Your task to perform on an android device: turn off smart reply in the gmail app Image 0: 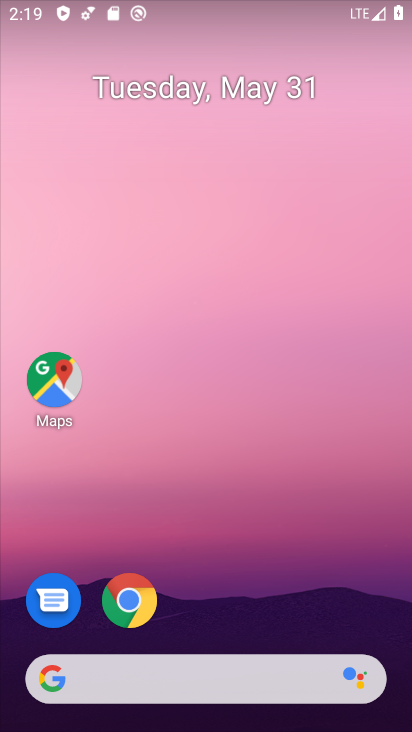
Step 0: press home button
Your task to perform on an android device: turn off smart reply in the gmail app Image 1: 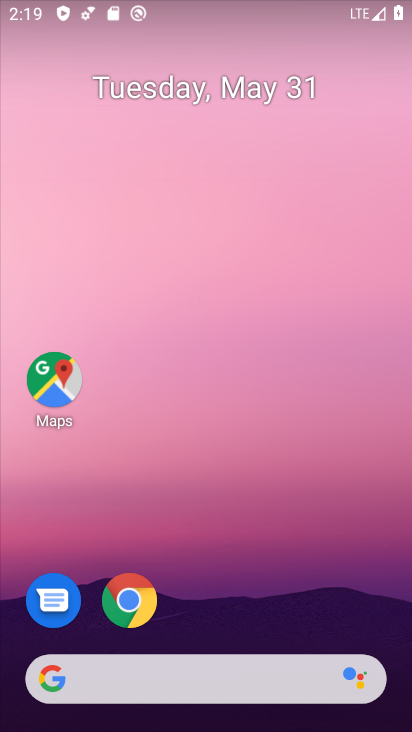
Step 1: click (216, 147)
Your task to perform on an android device: turn off smart reply in the gmail app Image 2: 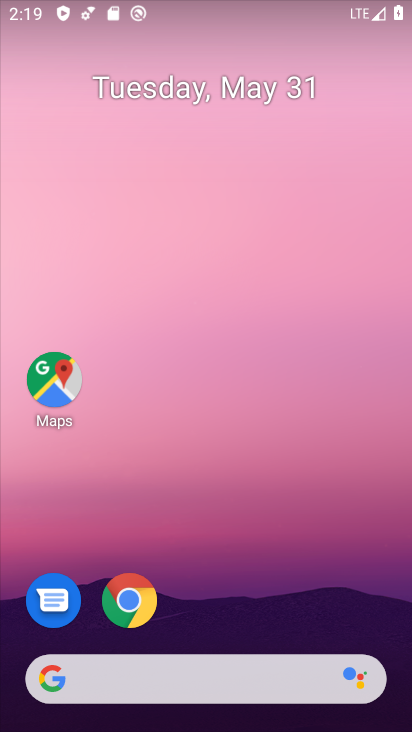
Step 2: drag from (222, 638) to (236, 303)
Your task to perform on an android device: turn off smart reply in the gmail app Image 3: 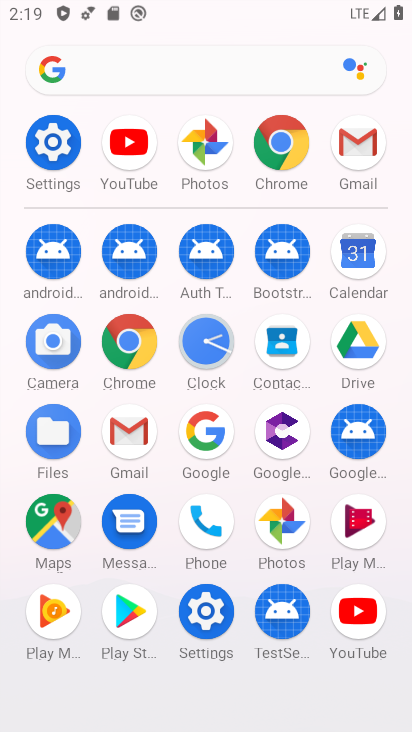
Step 3: click (129, 422)
Your task to perform on an android device: turn off smart reply in the gmail app Image 4: 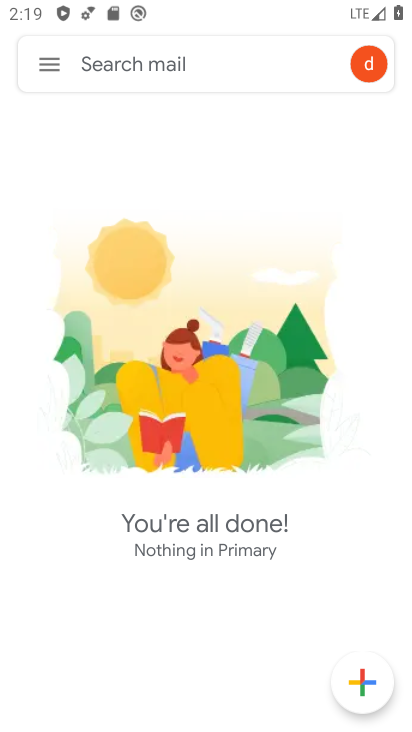
Step 4: click (42, 64)
Your task to perform on an android device: turn off smart reply in the gmail app Image 5: 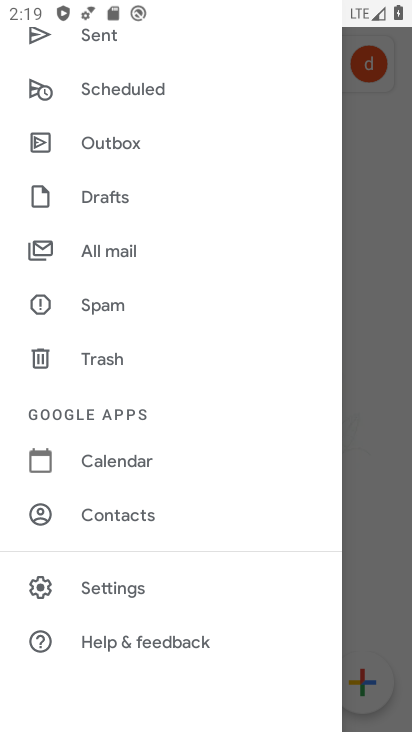
Step 5: click (157, 582)
Your task to perform on an android device: turn off smart reply in the gmail app Image 6: 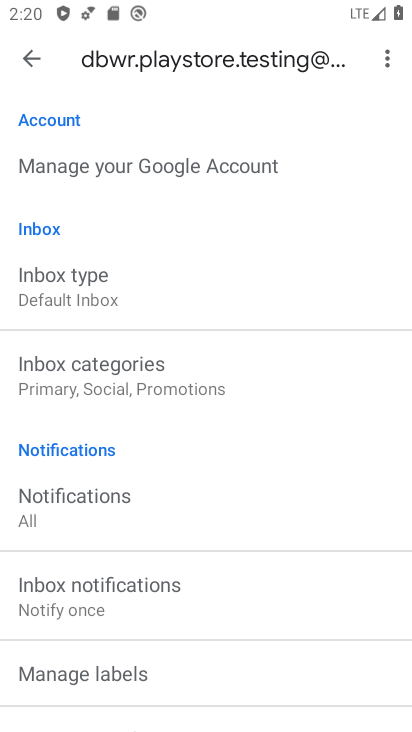
Step 6: drag from (182, 634) to (195, 231)
Your task to perform on an android device: turn off smart reply in the gmail app Image 7: 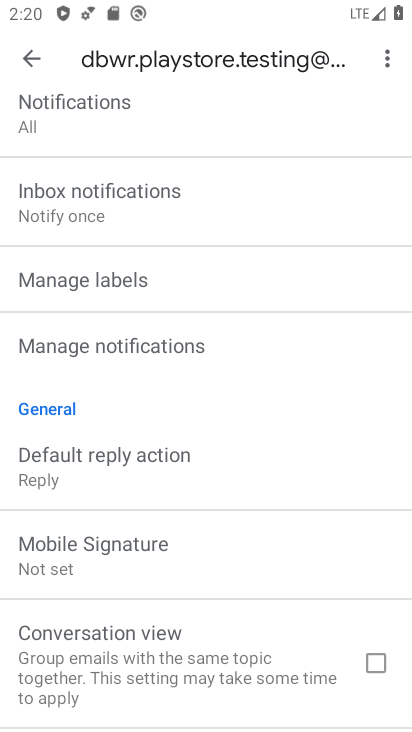
Step 7: drag from (226, 488) to (247, 222)
Your task to perform on an android device: turn off smart reply in the gmail app Image 8: 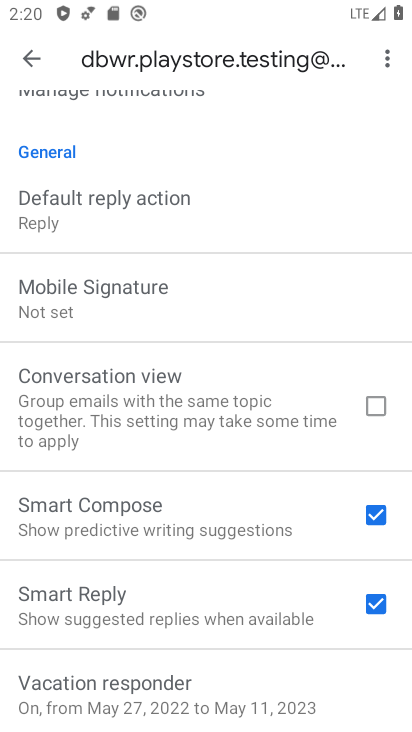
Step 8: click (369, 596)
Your task to perform on an android device: turn off smart reply in the gmail app Image 9: 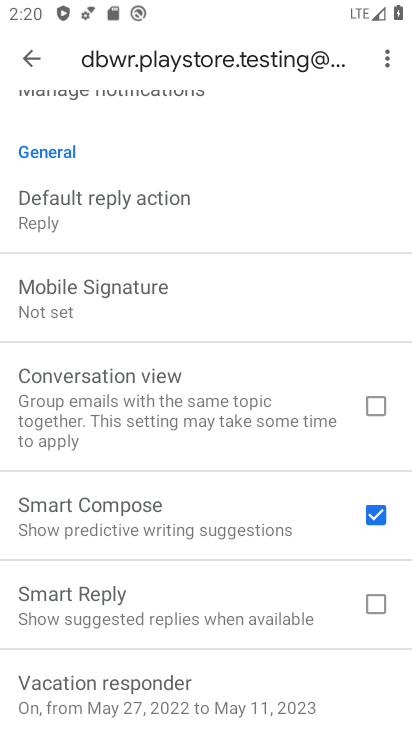
Step 9: task complete